Your task to perform on an android device: turn off priority inbox in the gmail app Image 0: 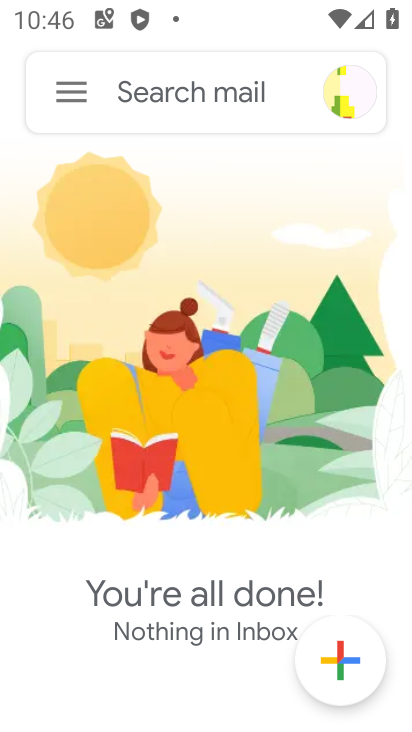
Step 0: click (65, 96)
Your task to perform on an android device: turn off priority inbox in the gmail app Image 1: 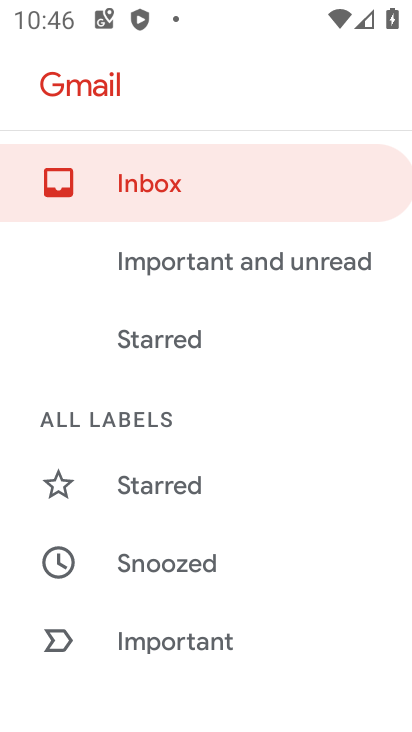
Step 1: drag from (211, 605) to (234, 335)
Your task to perform on an android device: turn off priority inbox in the gmail app Image 2: 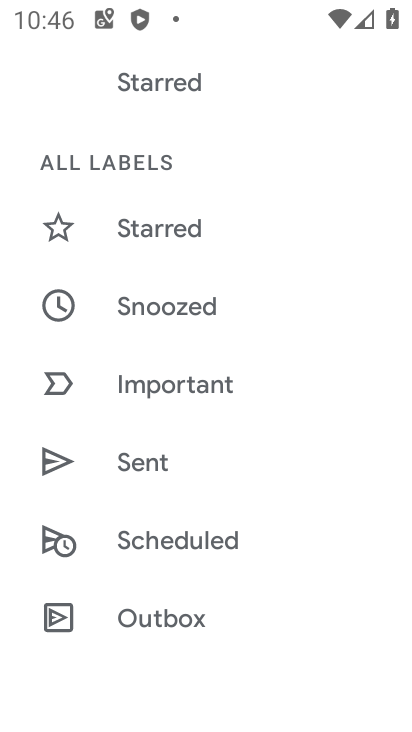
Step 2: drag from (195, 588) to (250, 291)
Your task to perform on an android device: turn off priority inbox in the gmail app Image 3: 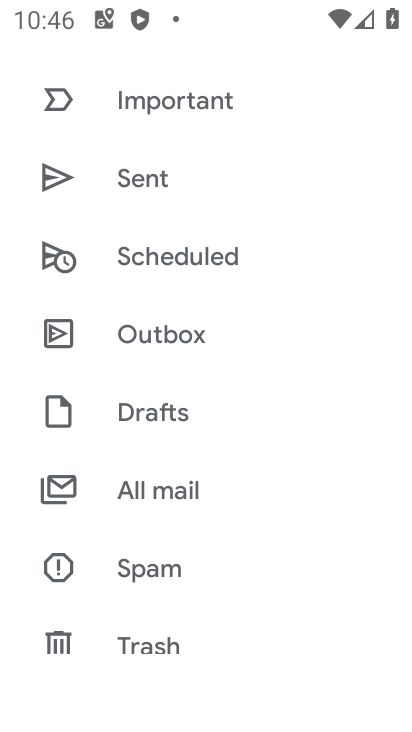
Step 3: drag from (247, 559) to (288, 267)
Your task to perform on an android device: turn off priority inbox in the gmail app Image 4: 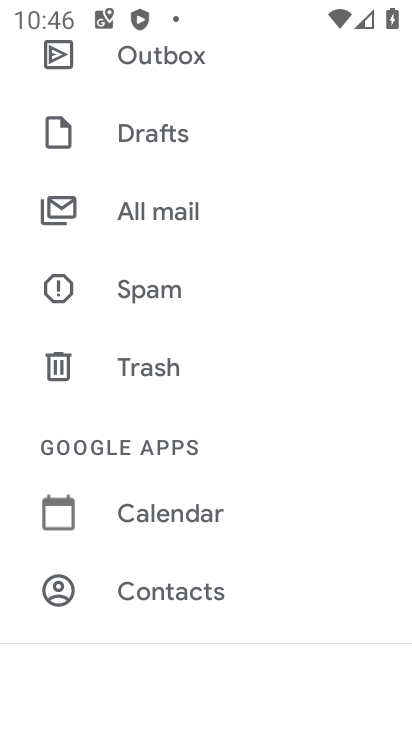
Step 4: drag from (238, 549) to (285, 273)
Your task to perform on an android device: turn off priority inbox in the gmail app Image 5: 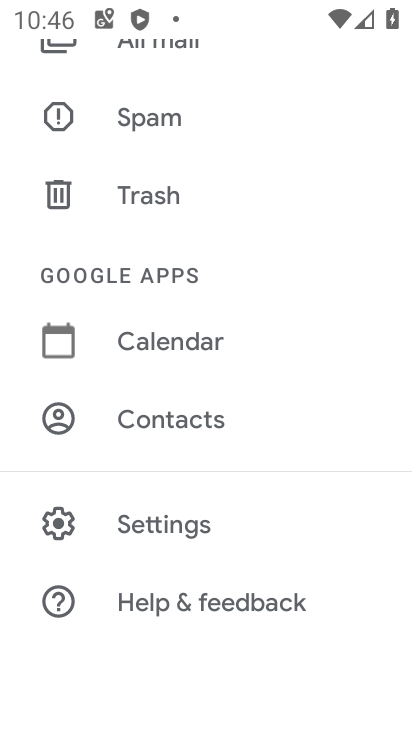
Step 5: click (172, 542)
Your task to perform on an android device: turn off priority inbox in the gmail app Image 6: 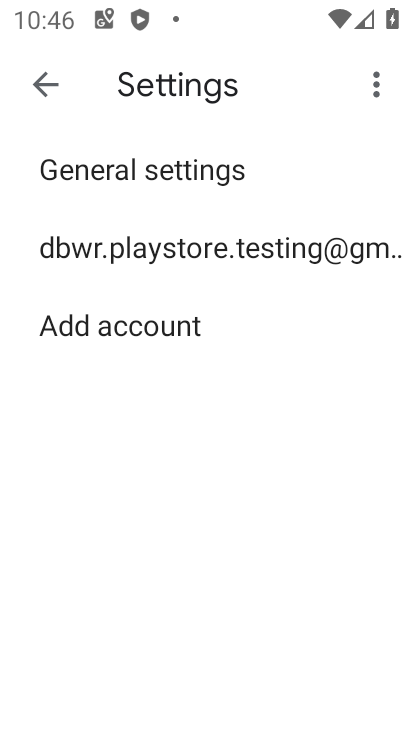
Step 6: click (225, 256)
Your task to perform on an android device: turn off priority inbox in the gmail app Image 7: 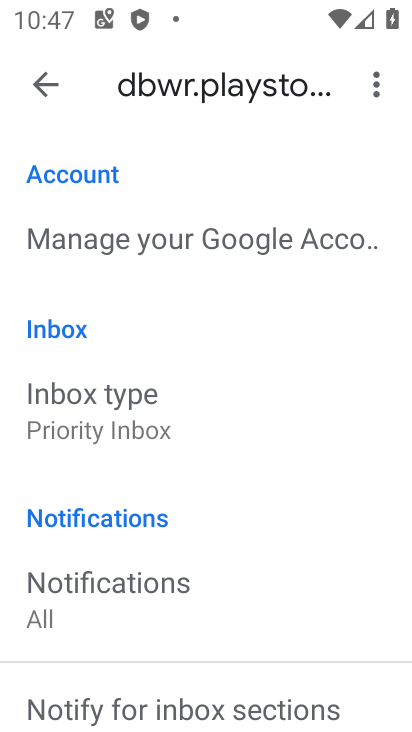
Step 7: click (122, 414)
Your task to perform on an android device: turn off priority inbox in the gmail app Image 8: 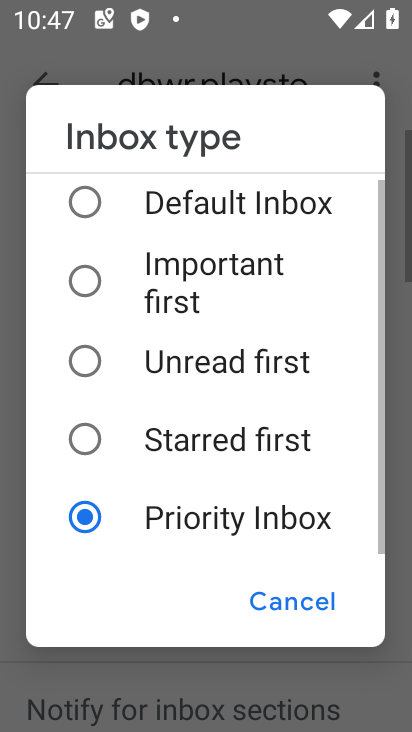
Step 8: click (170, 212)
Your task to perform on an android device: turn off priority inbox in the gmail app Image 9: 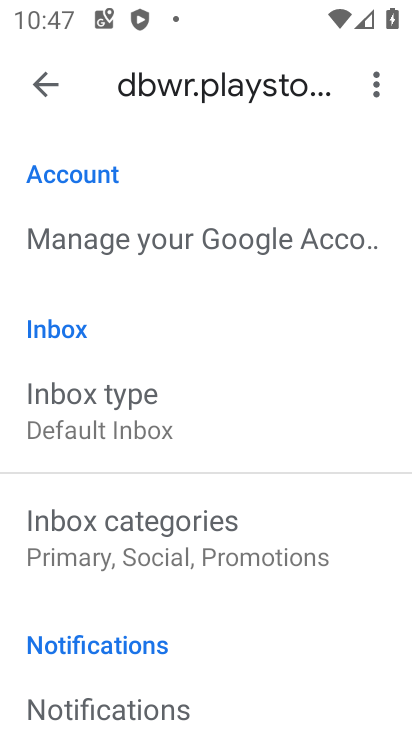
Step 9: task complete